Your task to perform on an android device: change keyboard looks Image 0: 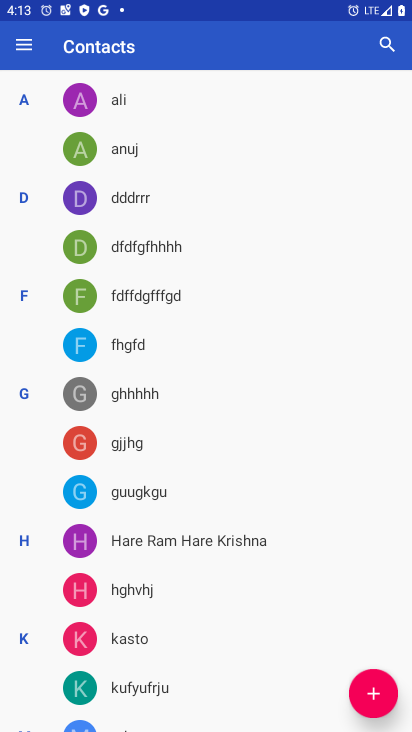
Step 0: press home button
Your task to perform on an android device: change keyboard looks Image 1: 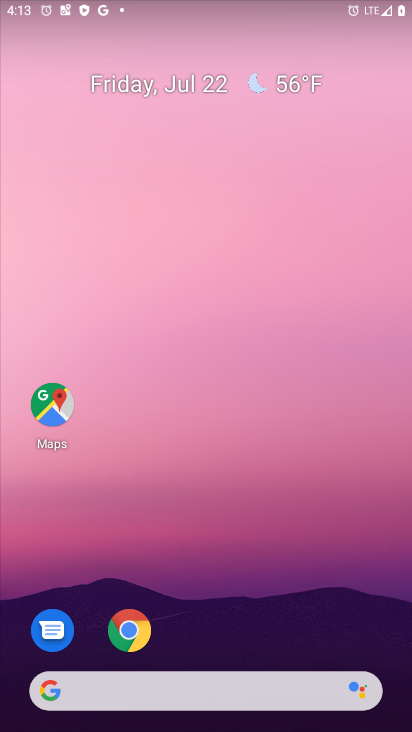
Step 1: drag from (214, 712) to (157, 191)
Your task to perform on an android device: change keyboard looks Image 2: 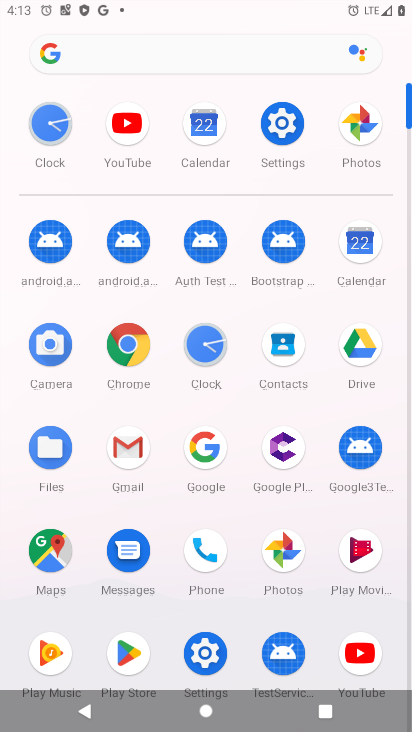
Step 2: click (282, 134)
Your task to perform on an android device: change keyboard looks Image 3: 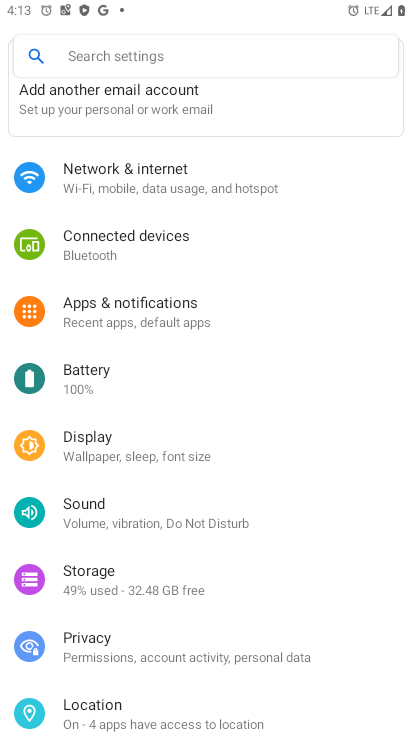
Step 3: drag from (121, 655) to (95, 141)
Your task to perform on an android device: change keyboard looks Image 4: 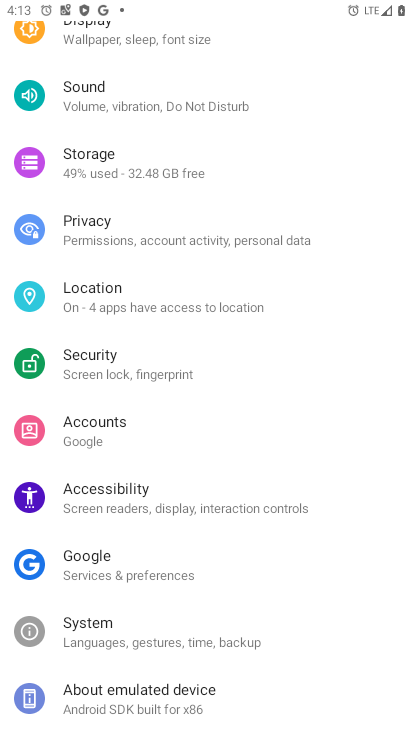
Step 4: click (151, 653)
Your task to perform on an android device: change keyboard looks Image 5: 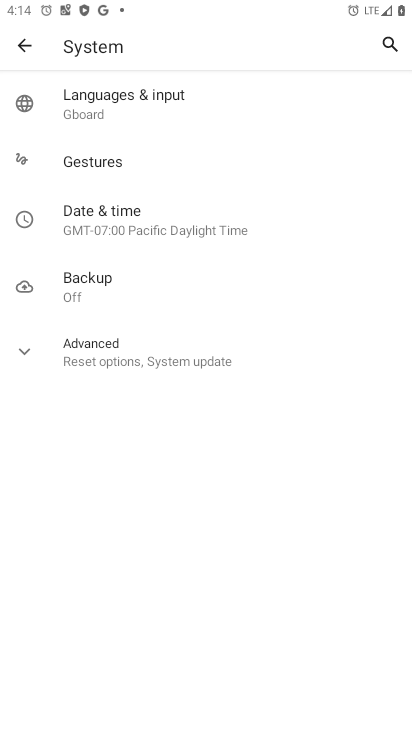
Step 5: click (108, 117)
Your task to perform on an android device: change keyboard looks Image 6: 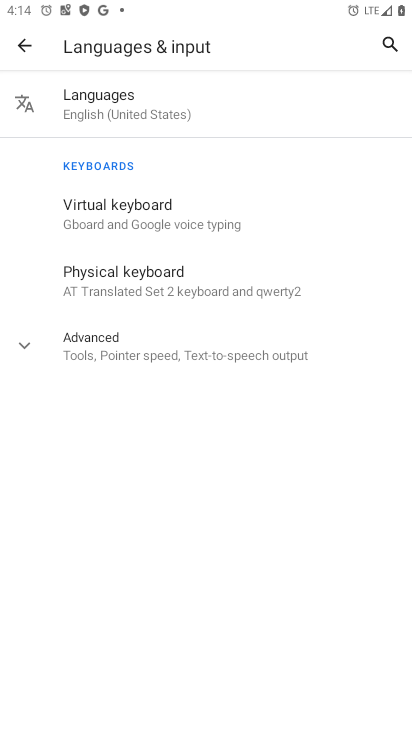
Step 6: click (130, 222)
Your task to perform on an android device: change keyboard looks Image 7: 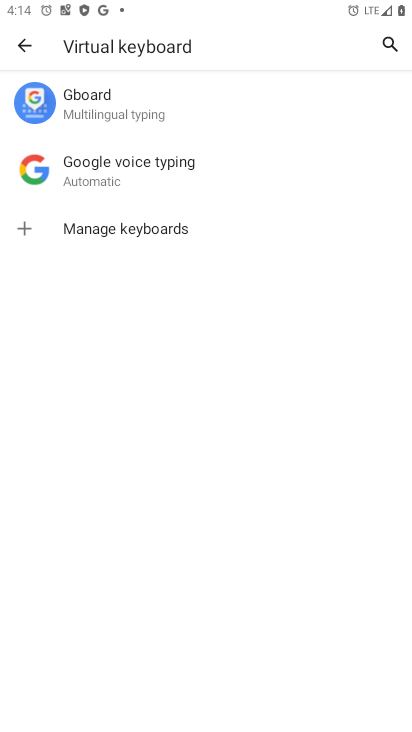
Step 7: click (136, 96)
Your task to perform on an android device: change keyboard looks Image 8: 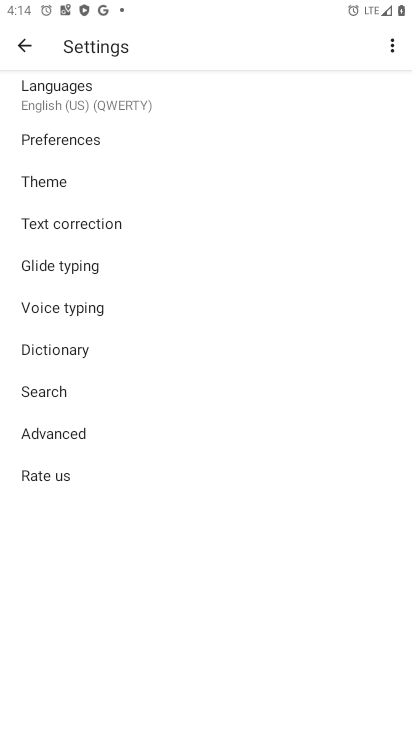
Step 8: drag from (87, 173) to (17, 173)
Your task to perform on an android device: change keyboard looks Image 9: 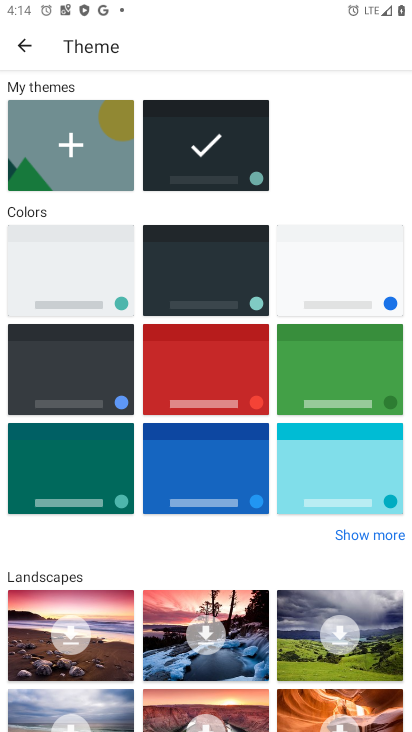
Step 9: click (215, 497)
Your task to perform on an android device: change keyboard looks Image 10: 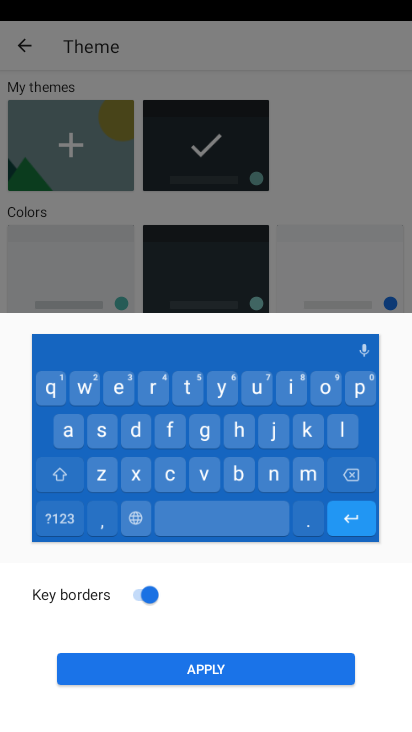
Step 10: click (233, 667)
Your task to perform on an android device: change keyboard looks Image 11: 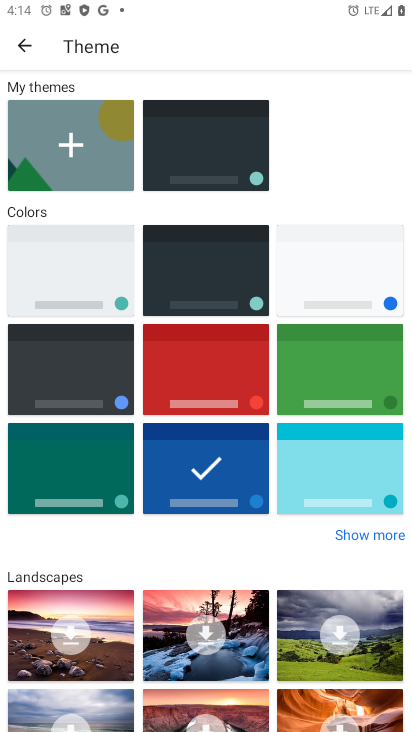
Step 11: task complete